Your task to perform on an android device: Do I have any events today? Image 0: 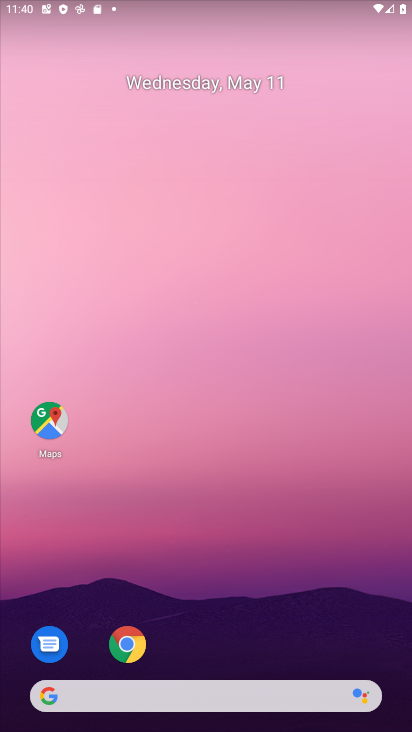
Step 0: drag from (306, 617) to (256, 166)
Your task to perform on an android device: Do I have any events today? Image 1: 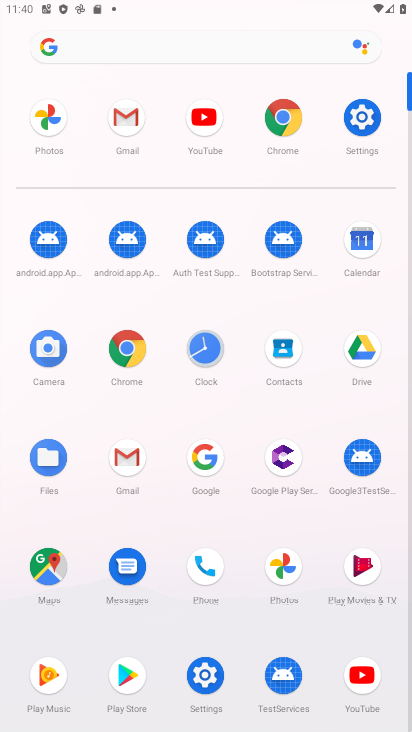
Step 1: click (352, 238)
Your task to perform on an android device: Do I have any events today? Image 2: 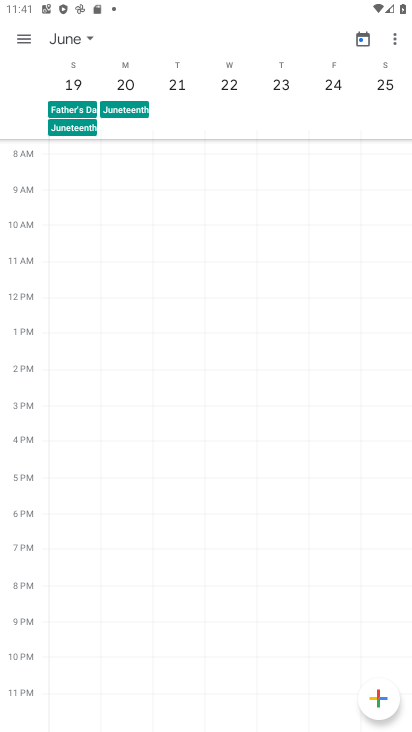
Step 2: task complete